Your task to perform on an android device: Open my contact list Image 0: 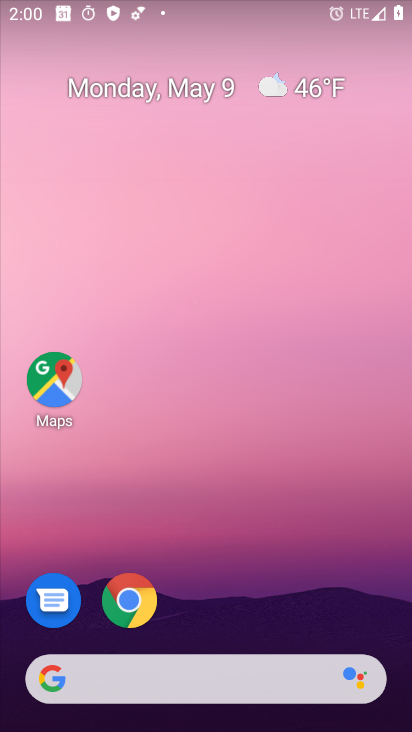
Step 0: drag from (258, 650) to (298, 112)
Your task to perform on an android device: Open my contact list Image 1: 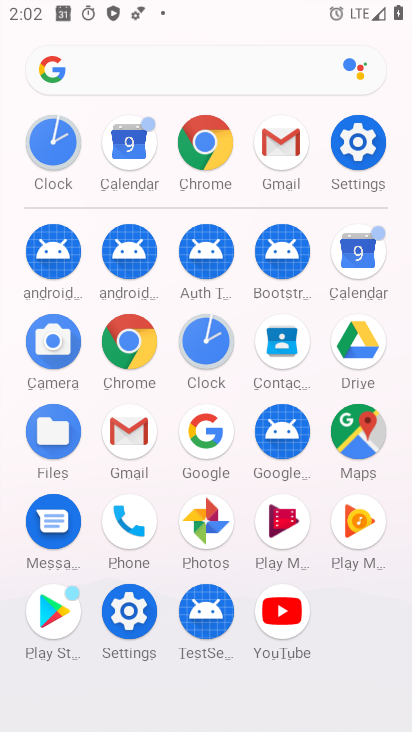
Step 1: click (289, 339)
Your task to perform on an android device: Open my contact list Image 2: 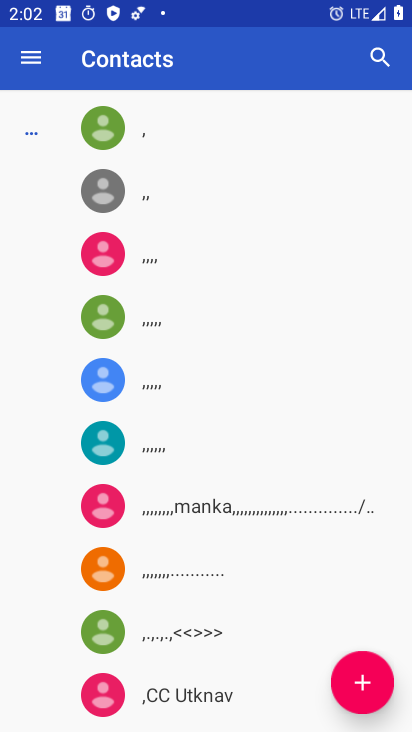
Step 2: task complete